Your task to perform on an android device: Open notification settings Image 0: 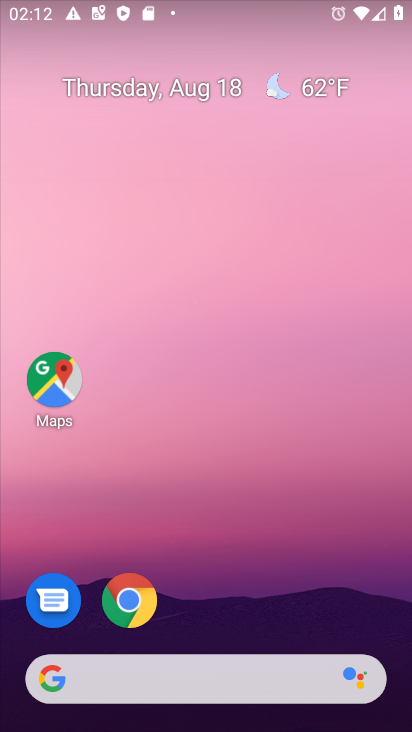
Step 0: press home button
Your task to perform on an android device: Open notification settings Image 1: 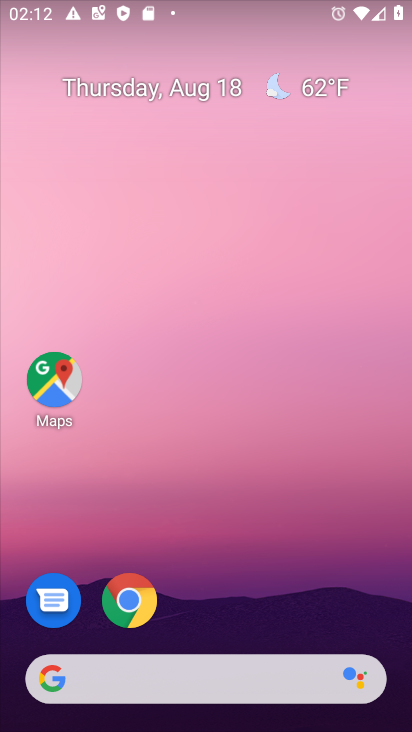
Step 1: drag from (273, 621) to (314, 127)
Your task to perform on an android device: Open notification settings Image 2: 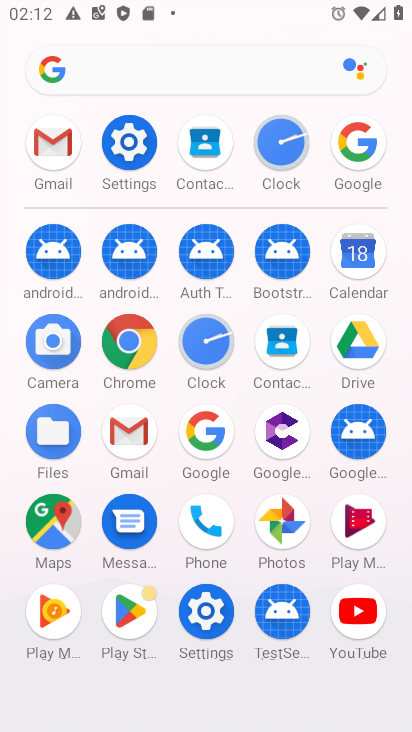
Step 2: click (140, 142)
Your task to perform on an android device: Open notification settings Image 3: 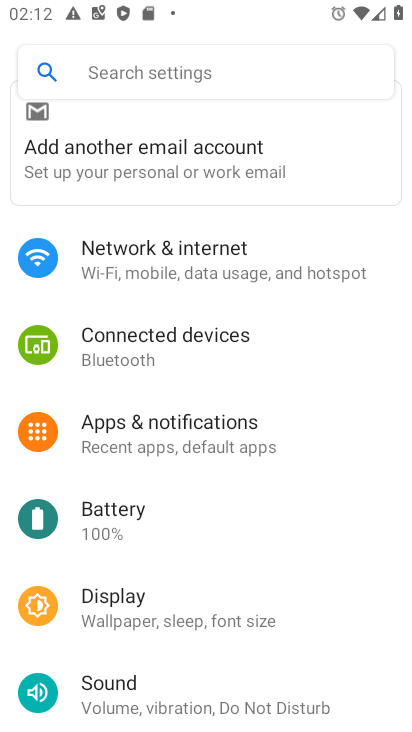
Step 3: click (130, 433)
Your task to perform on an android device: Open notification settings Image 4: 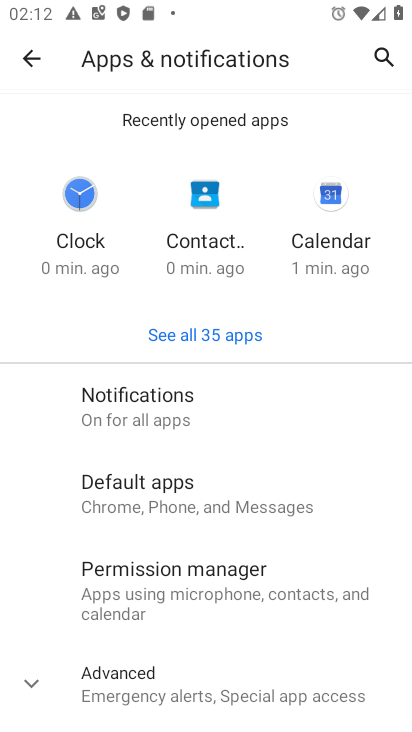
Step 4: click (118, 413)
Your task to perform on an android device: Open notification settings Image 5: 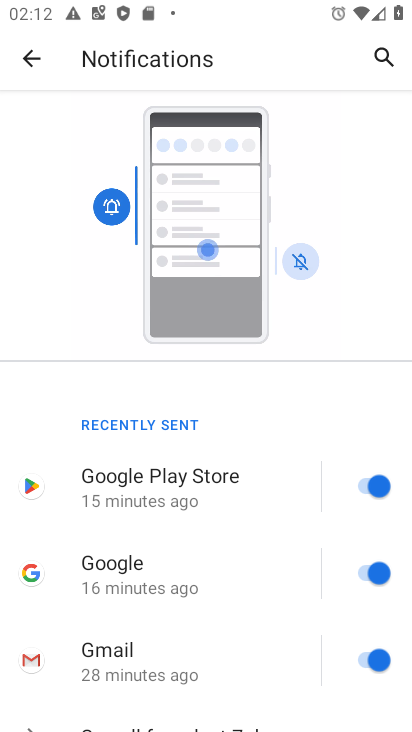
Step 5: task complete